Your task to perform on an android device: open sync settings in chrome Image 0: 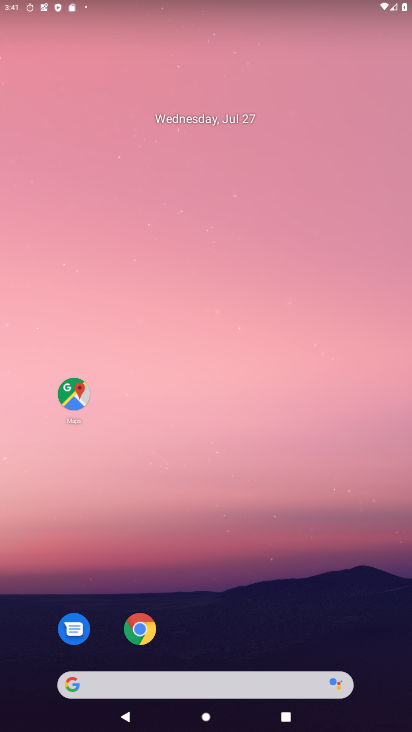
Step 0: drag from (338, 568) to (369, 63)
Your task to perform on an android device: open sync settings in chrome Image 1: 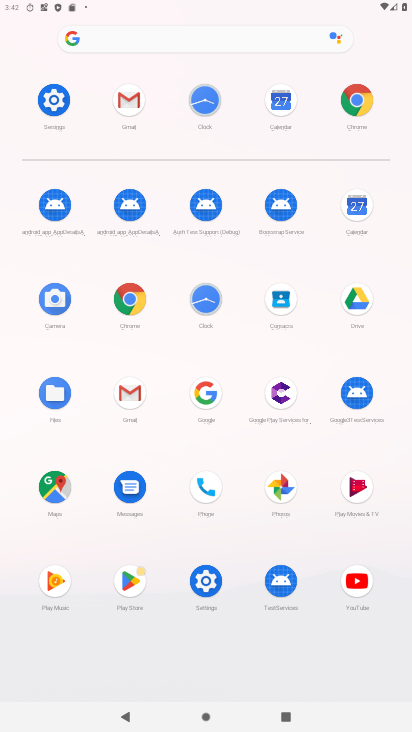
Step 1: click (359, 98)
Your task to perform on an android device: open sync settings in chrome Image 2: 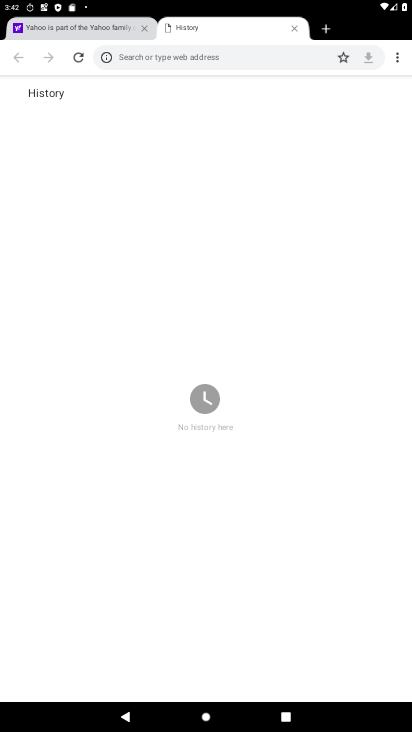
Step 2: drag from (397, 59) to (288, 274)
Your task to perform on an android device: open sync settings in chrome Image 3: 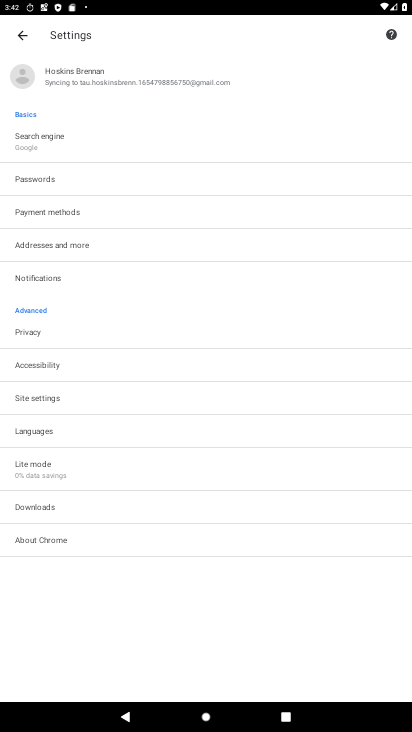
Step 3: click (131, 79)
Your task to perform on an android device: open sync settings in chrome Image 4: 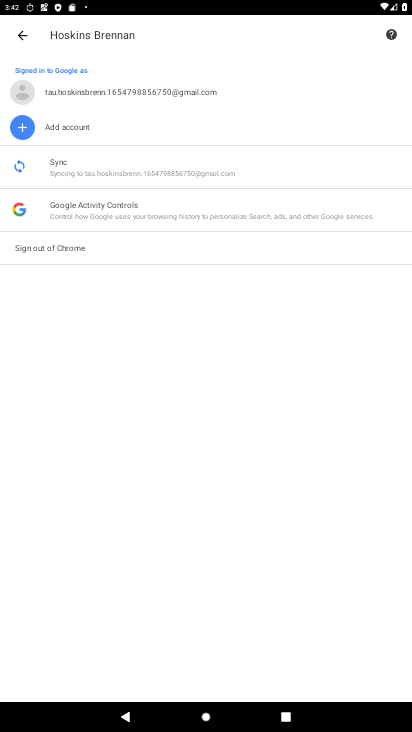
Step 4: click (89, 163)
Your task to perform on an android device: open sync settings in chrome Image 5: 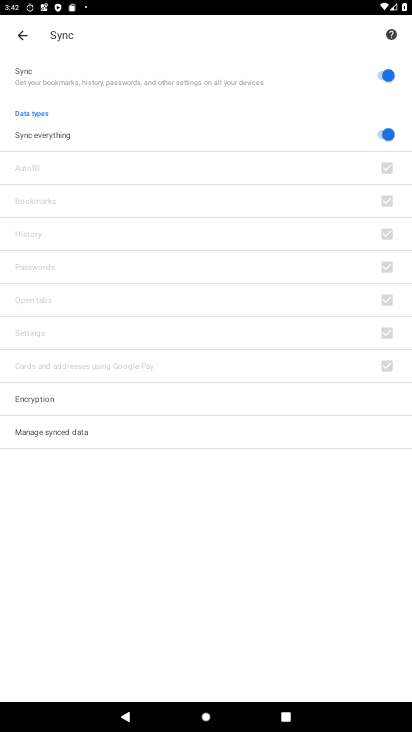
Step 5: task complete